Your task to perform on an android device: Open settings Image 0: 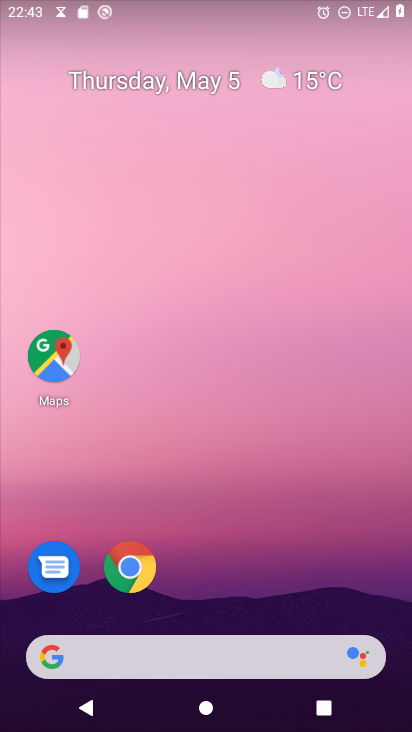
Step 0: drag from (224, 725) to (223, 228)
Your task to perform on an android device: Open settings Image 1: 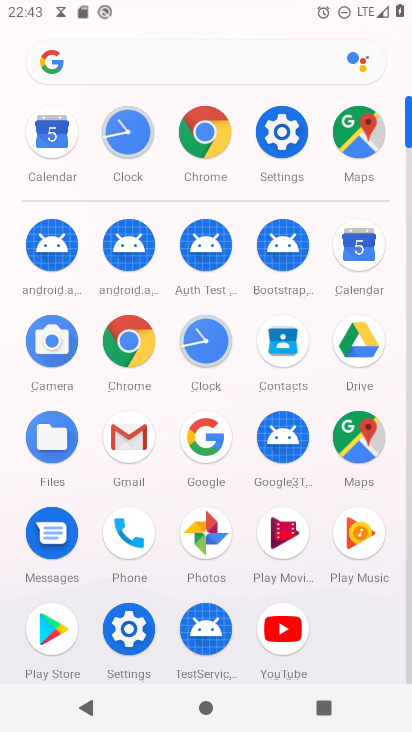
Step 1: click (279, 131)
Your task to perform on an android device: Open settings Image 2: 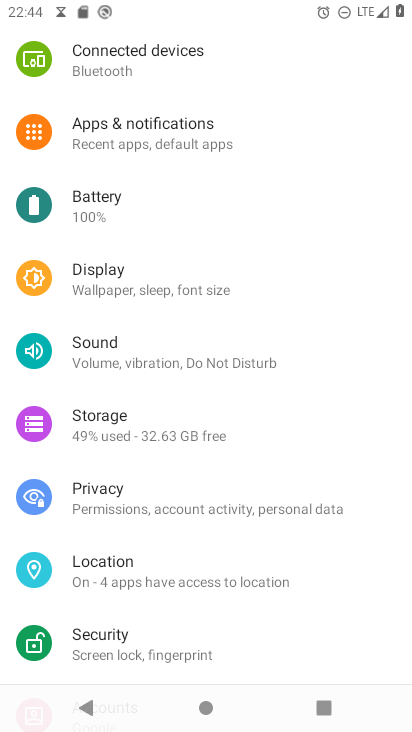
Step 2: task complete